Your task to perform on an android device: turn off improve location accuracy Image 0: 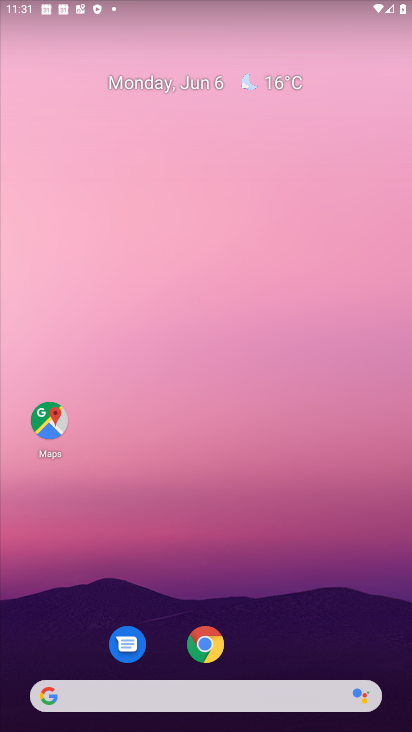
Step 0: drag from (308, 655) to (217, 253)
Your task to perform on an android device: turn off improve location accuracy Image 1: 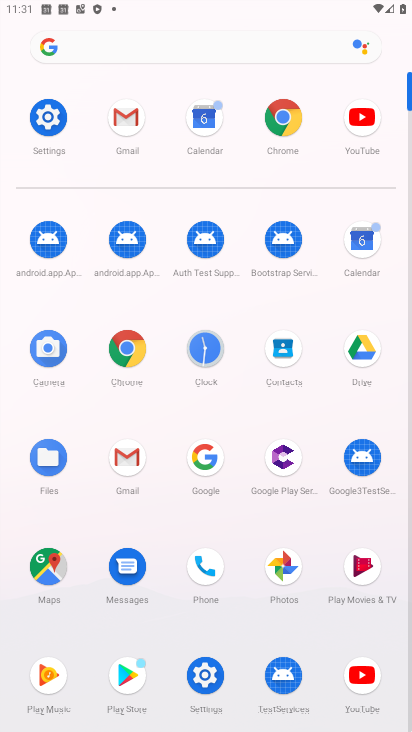
Step 1: click (49, 124)
Your task to perform on an android device: turn off improve location accuracy Image 2: 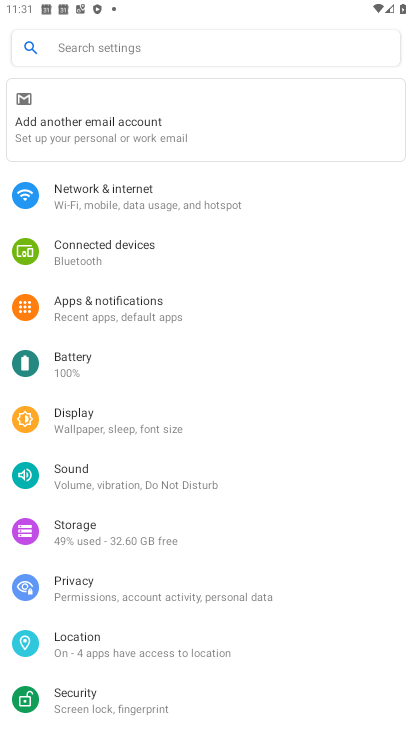
Step 2: click (201, 644)
Your task to perform on an android device: turn off improve location accuracy Image 3: 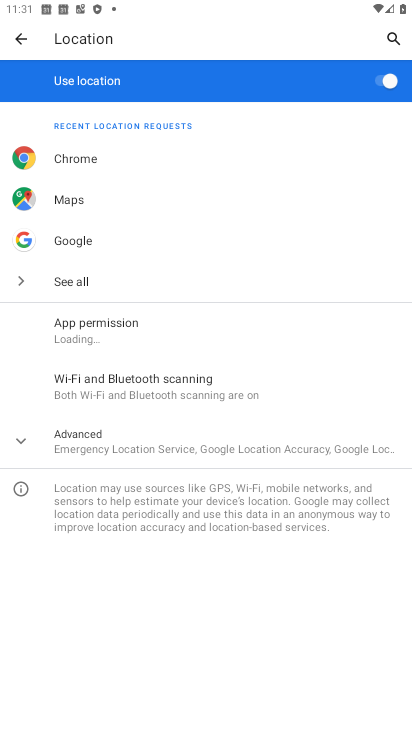
Step 3: click (268, 459)
Your task to perform on an android device: turn off improve location accuracy Image 4: 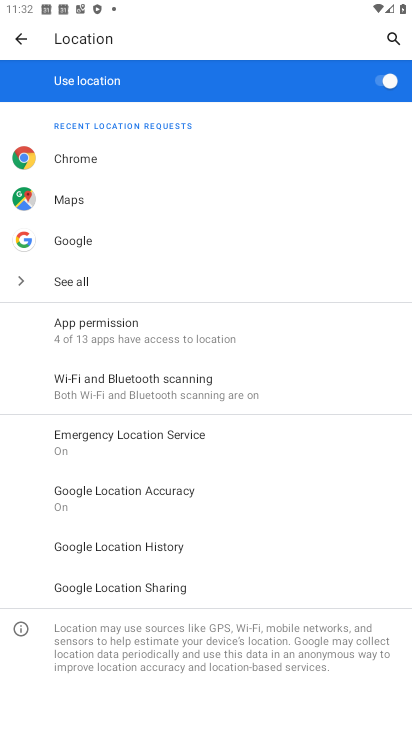
Step 4: click (230, 488)
Your task to perform on an android device: turn off improve location accuracy Image 5: 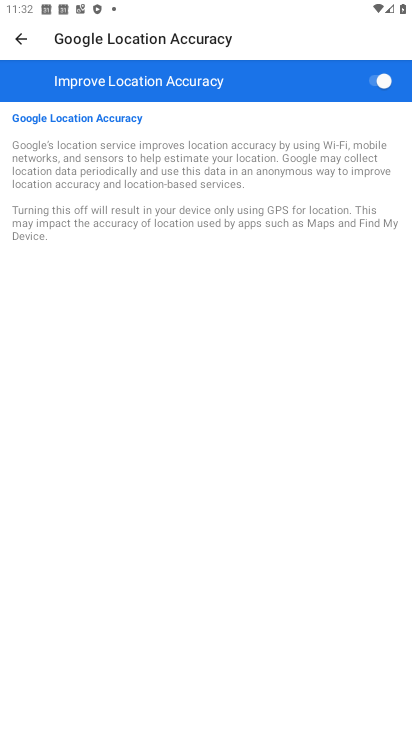
Step 5: click (378, 87)
Your task to perform on an android device: turn off improve location accuracy Image 6: 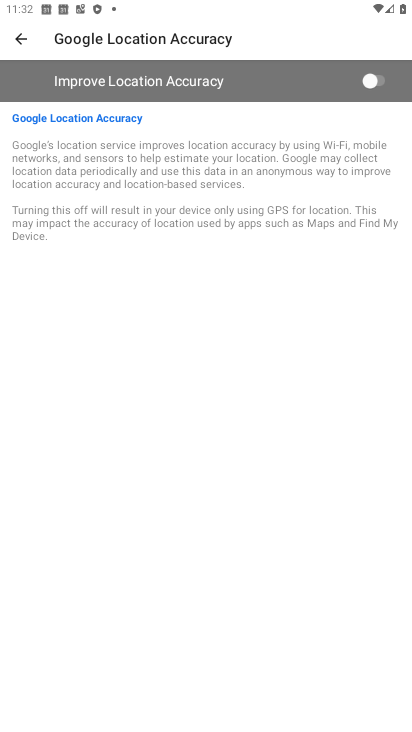
Step 6: task complete